Your task to perform on an android device: Is it going to rain tomorrow? Image 0: 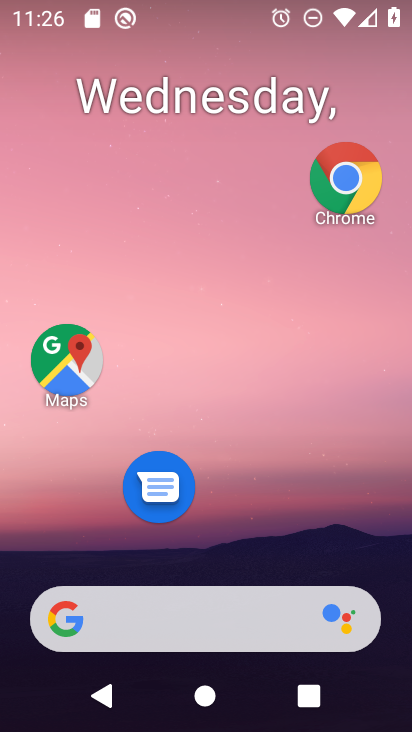
Step 0: drag from (193, 606) to (203, 141)
Your task to perform on an android device: Is it going to rain tomorrow? Image 1: 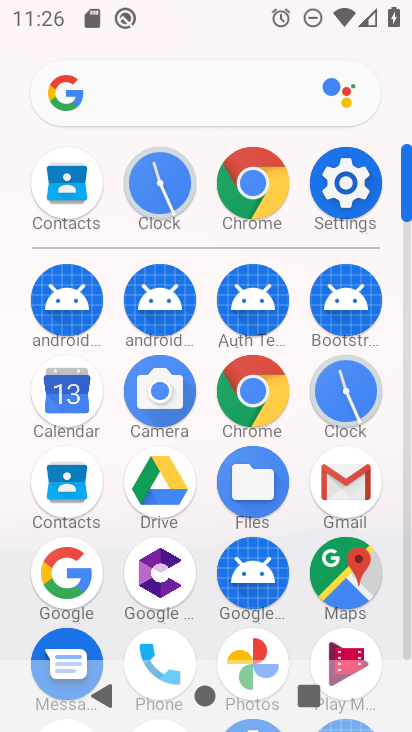
Step 1: click (95, 584)
Your task to perform on an android device: Is it going to rain tomorrow? Image 2: 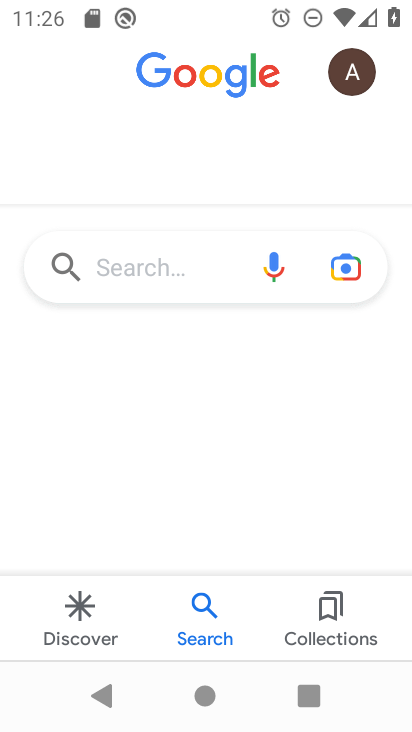
Step 2: click (174, 283)
Your task to perform on an android device: Is it going to rain tomorrow? Image 3: 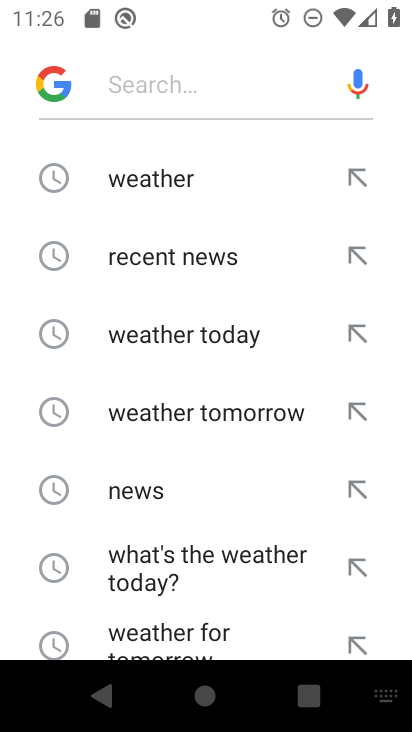
Step 3: click (253, 409)
Your task to perform on an android device: Is it going to rain tomorrow? Image 4: 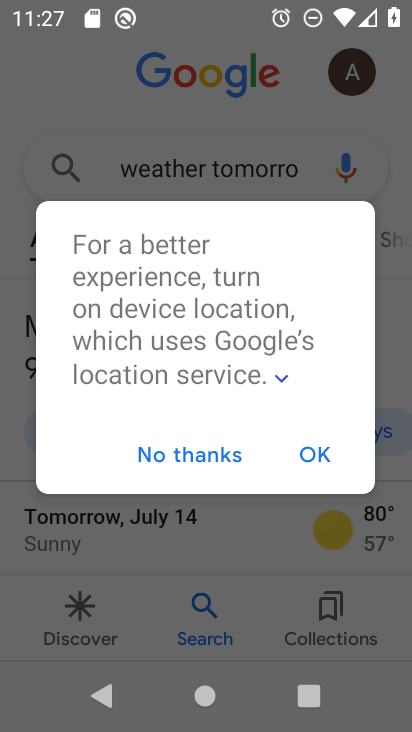
Step 4: click (295, 455)
Your task to perform on an android device: Is it going to rain tomorrow? Image 5: 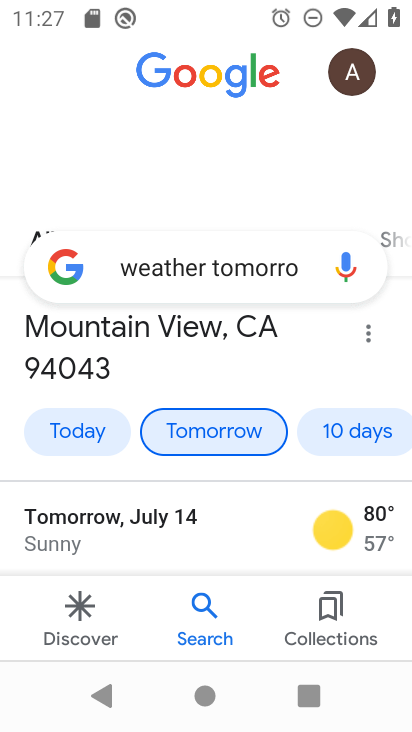
Step 5: task complete